Your task to perform on an android device: Go to Wikipedia Image 0: 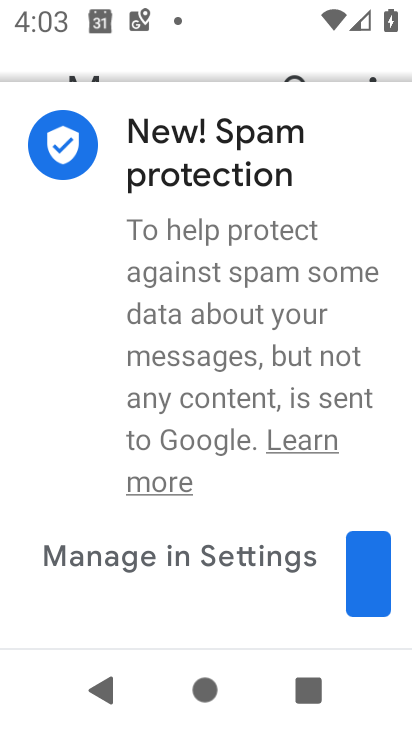
Step 0: press home button
Your task to perform on an android device: Go to Wikipedia Image 1: 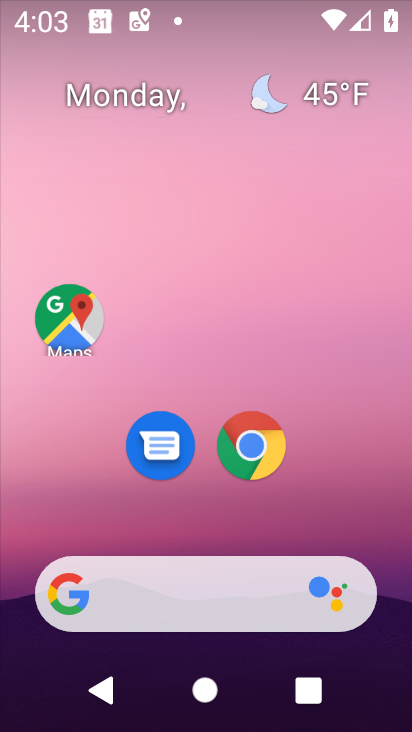
Step 1: click (233, 452)
Your task to perform on an android device: Go to Wikipedia Image 2: 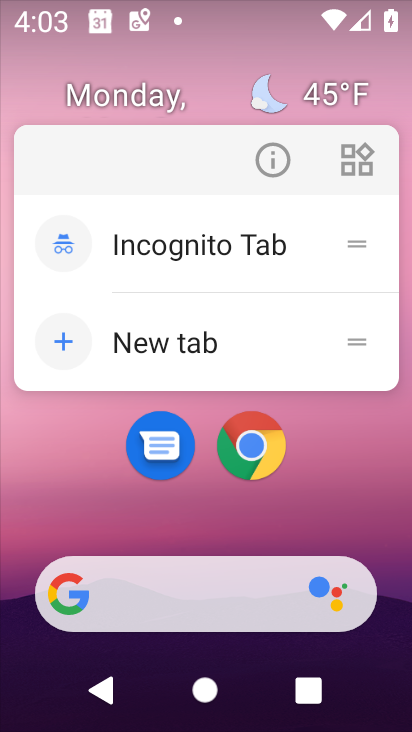
Step 2: click (219, 464)
Your task to perform on an android device: Go to Wikipedia Image 3: 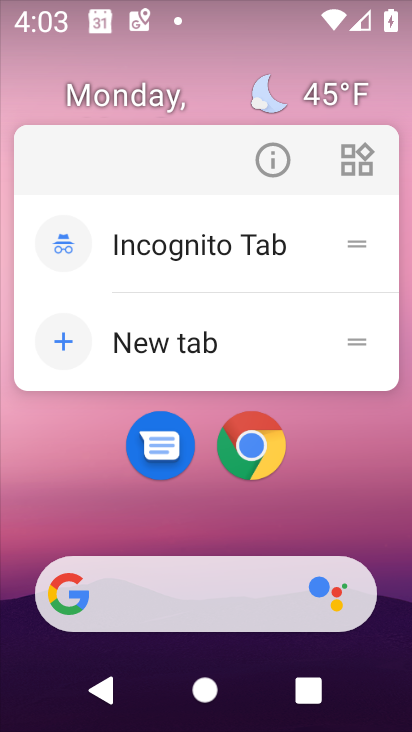
Step 3: click (240, 455)
Your task to perform on an android device: Go to Wikipedia Image 4: 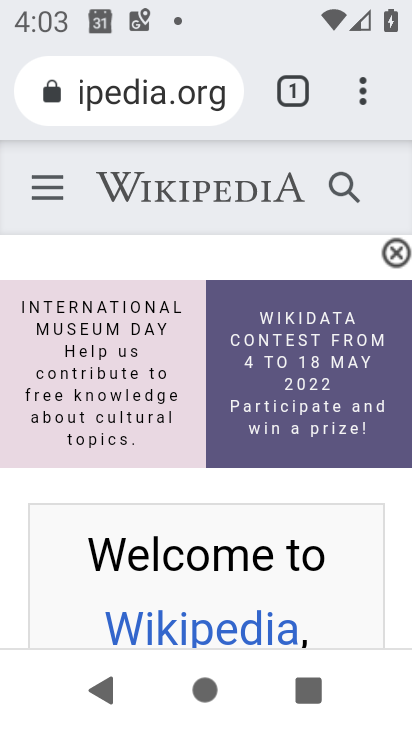
Step 4: task complete